Your task to perform on an android device: Open Chrome and go to settings Image 0: 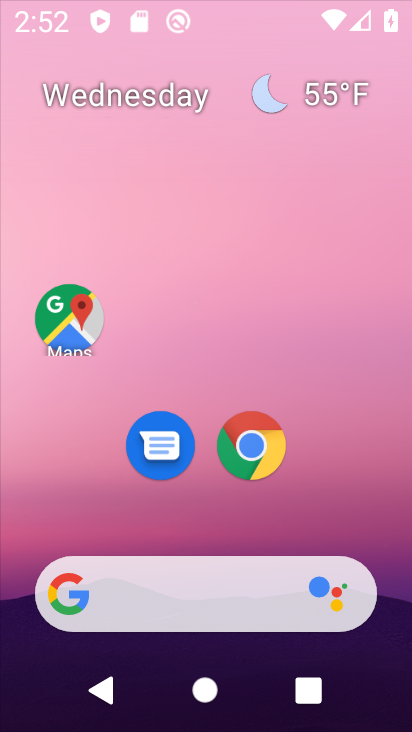
Step 0: click (143, 582)
Your task to perform on an android device: Open Chrome and go to settings Image 1: 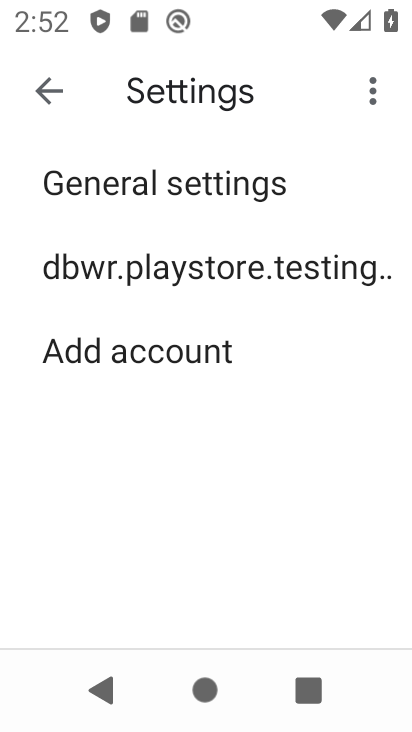
Step 1: click (67, 84)
Your task to perform on an android device: Open Chrome and go to settings Image 2: 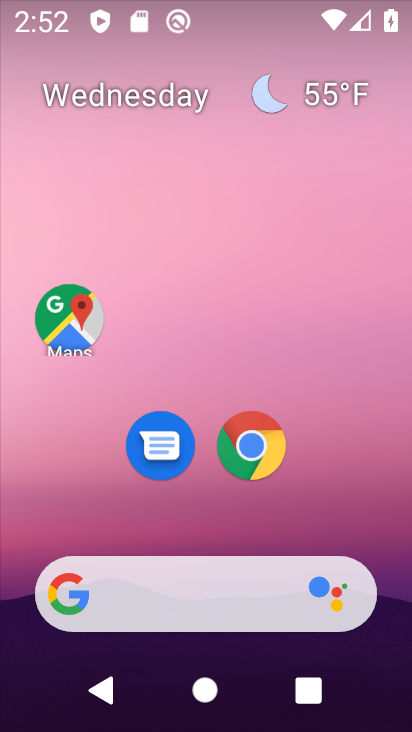
Step 2: click (268, 444)
Your task to perform on an android device: Open Chrome and go to settings Image 3: 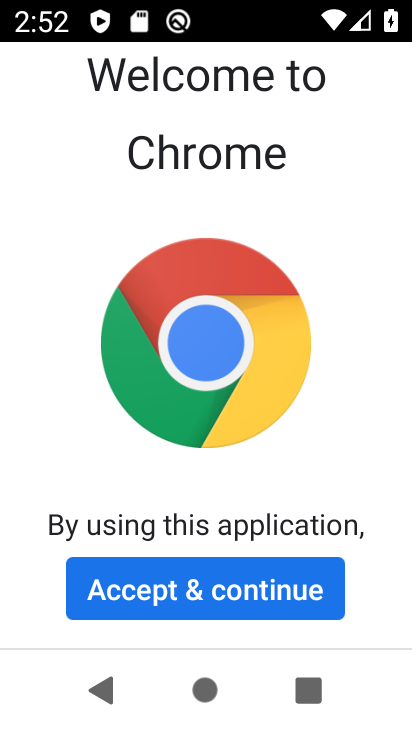
Step 3: click (180, 598)
Your task to perform on an android device: Open Chrome and go to settings Image 4: 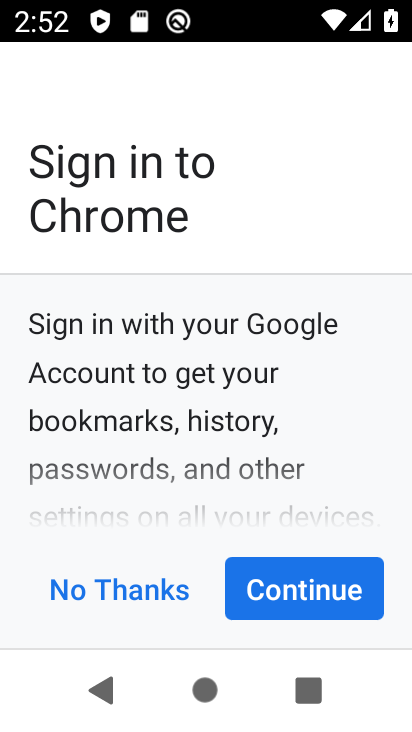
Step 4: click (322, 591)
Your task to perform on an android device: Open Chrome and go to settings Image 5: 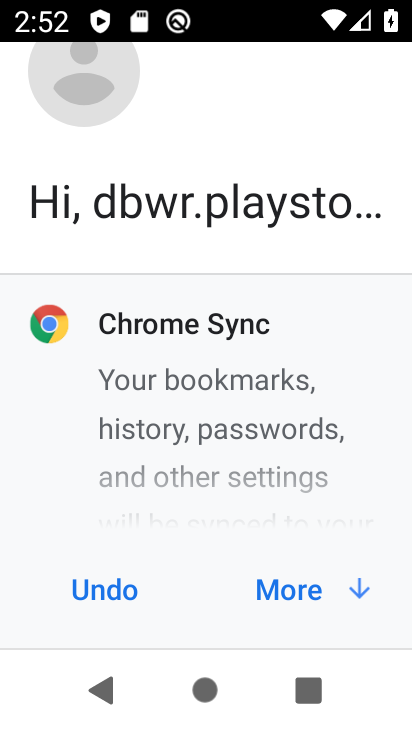
Step 5: click (318, 585)
Your task to perform on an android device: Open Chrome and go to settings Image 6: 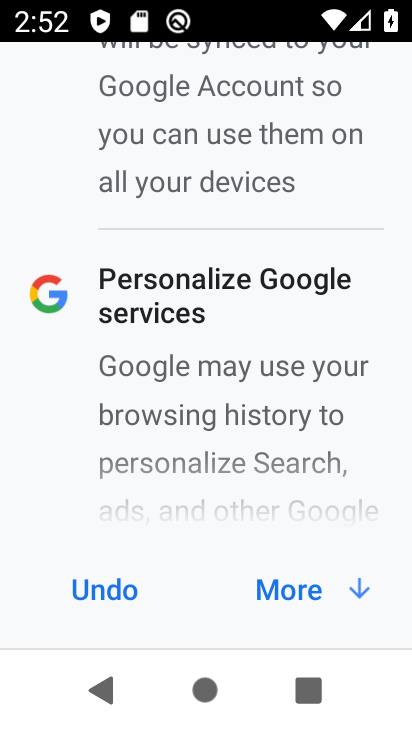
Step 6: click (318, 585)
Your task to perform on an android device: Open Chrome and go to settings Image 7: 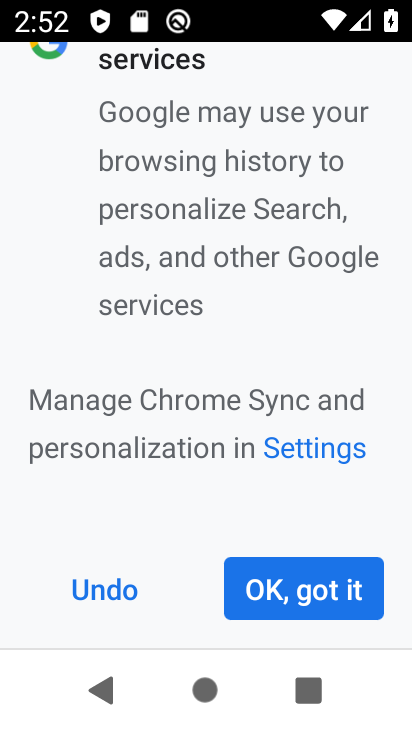
Step 7: click (317, 585)
Your task to perform on an android device: Open Chrome and go to settings Image 8: 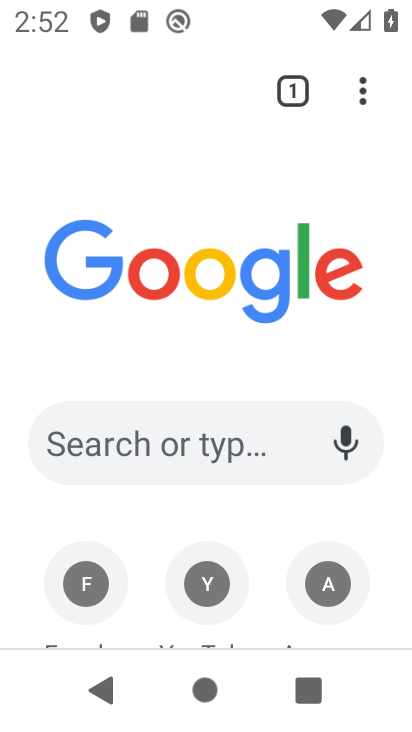
Step 8: click (356, 82)
Your task to perform on an android device: Open Chrome and go to settings Image 9: 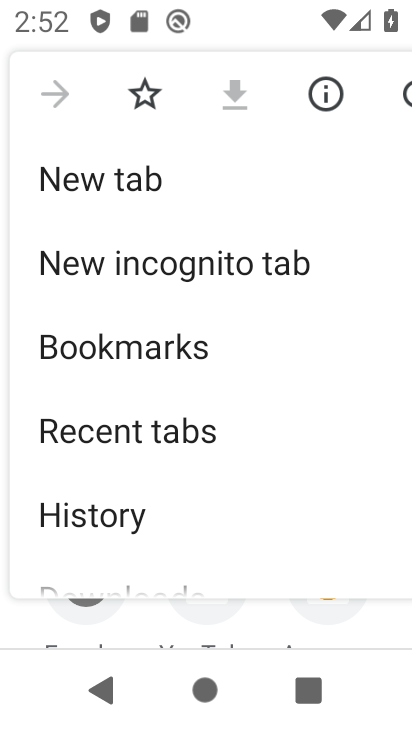
Step 9: drag from (144, 494) to (181, 189)
Your task to perform on an android device: Open Chrome and go to settings Image 10: 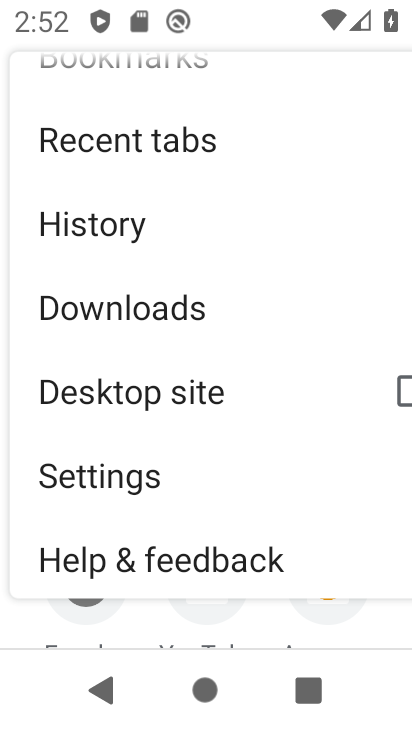
Step 10: click (118, 486)
Your task to perform on an android device: Open Chrome and go to settings Image 11: 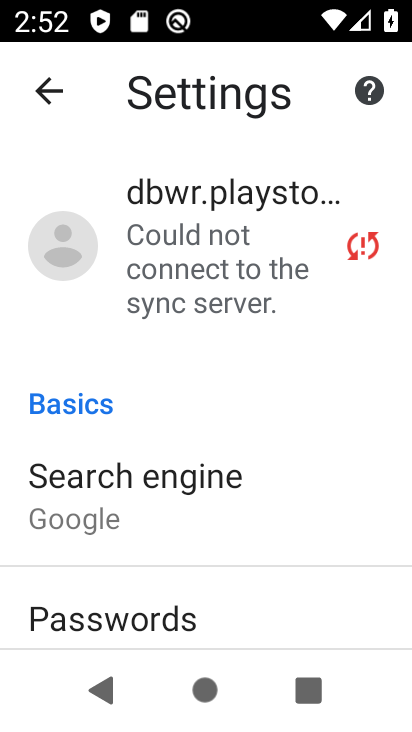
Step 11: task complete